Your task to perform on an android device: Open the Play Movies app and select the watchlist tab. Image 0: 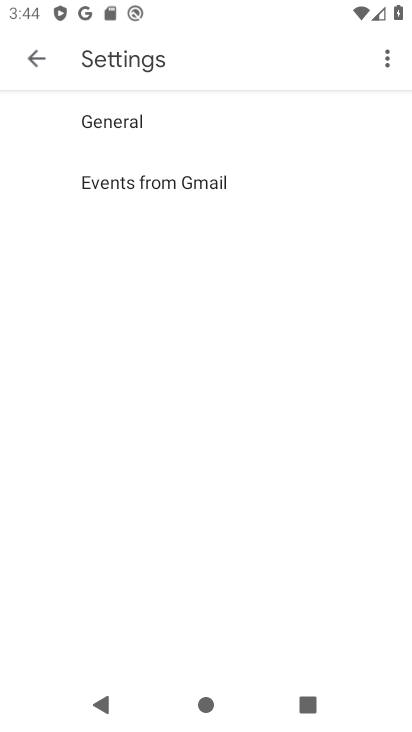
Step 0: press home button
Your task to perform on an android device: Open the Play Movies app and select the watchlist tab. Image 1: 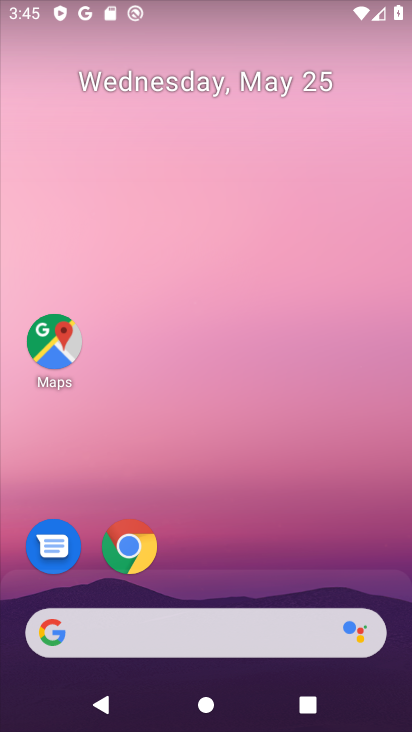
Step 1: drag from (257, 578) to (339, 31)
Your task to perform on an android device: Open the Play Movies app and select the watchlist tab. Image 2: 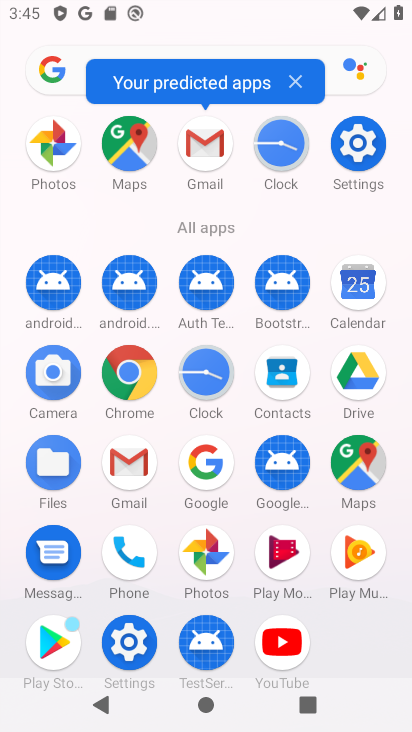
Step 2: click (271, 556)
Your task to perform on an android device: Open the Play Movies app and select the watchlist tab. Image 3: 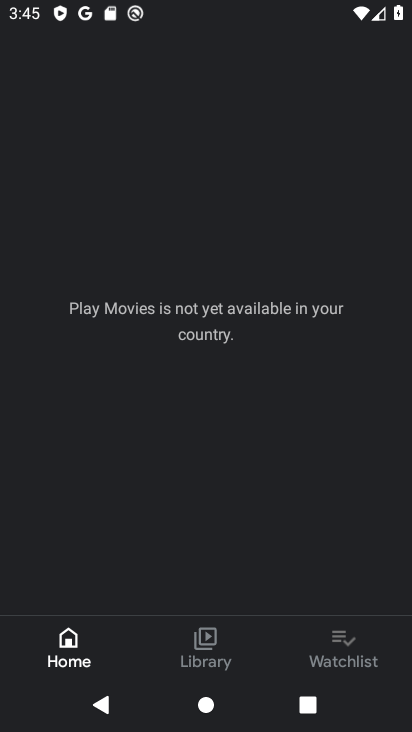
Step 3: click (353, 646)
Your task to perform on an android device: Open the Play Movies app and select the watchlist tab. Image 4: 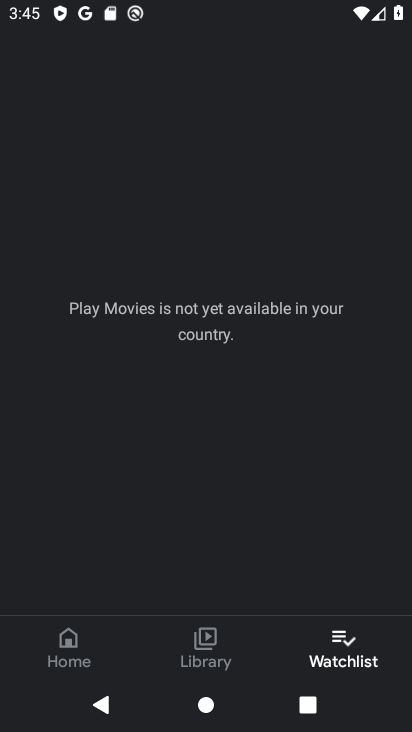
Step 4: task complete